Your task to perform on an android device: Go to Reddit.com Image 0: 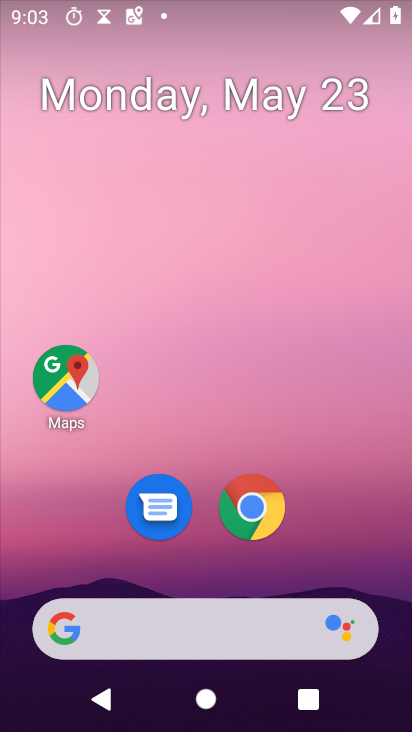
Step 0: click (251, 500)
Your task to perform on an android device: Go to Reddit.com Image 1: 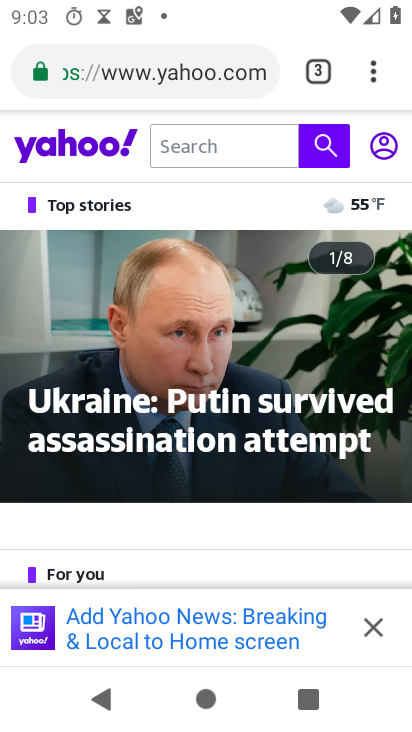
Step 1: click (230, 65)
Your task to perform on an android device: Go to Reddit.com Image 2: 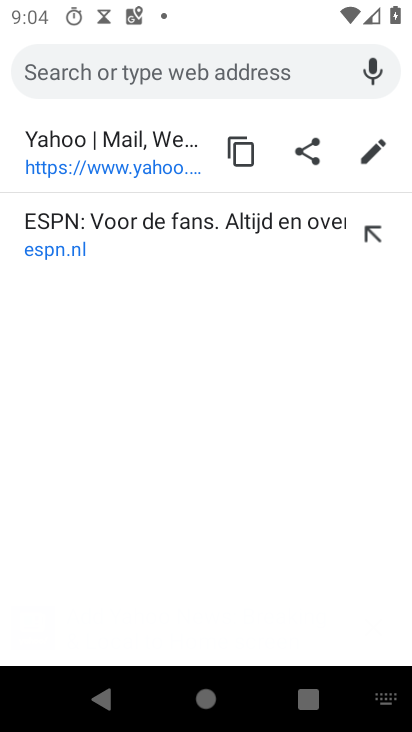
Step 2: type "reddit"
Your task to perform on an android device: Go to Reddit.com Image 3: 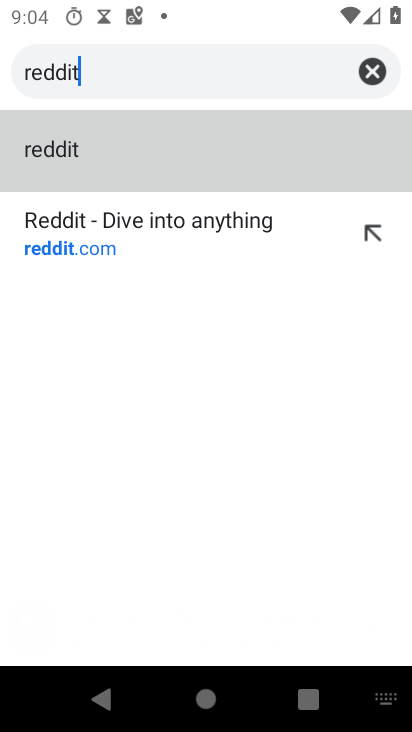
Step 3: click (76, 225)
Your task to perform on an android device: Go to Reddit.com Image 4: 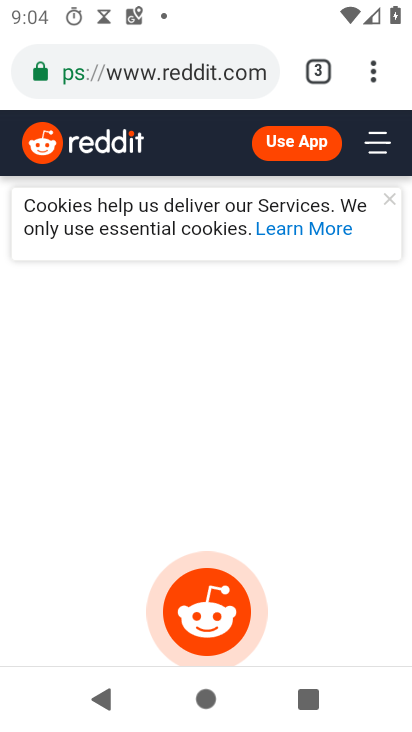
Step 4: task complete